Your task to perform on an android device: turn off airplane mode Image 0: 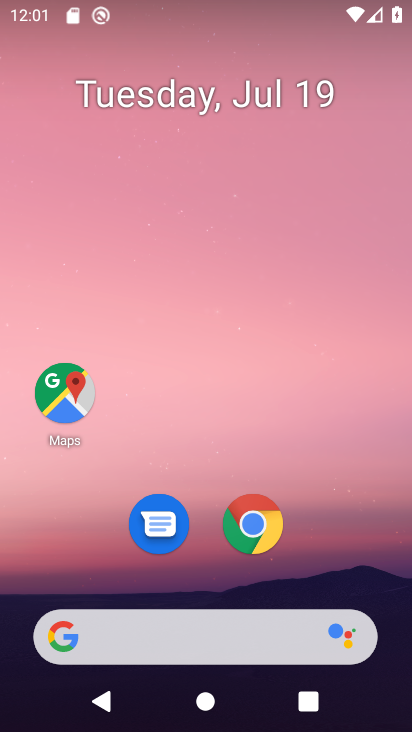
Step 0: drag from (325, 486) to (286, 36)
Your task to perform on an android device: turn off airplane mode Image 1: 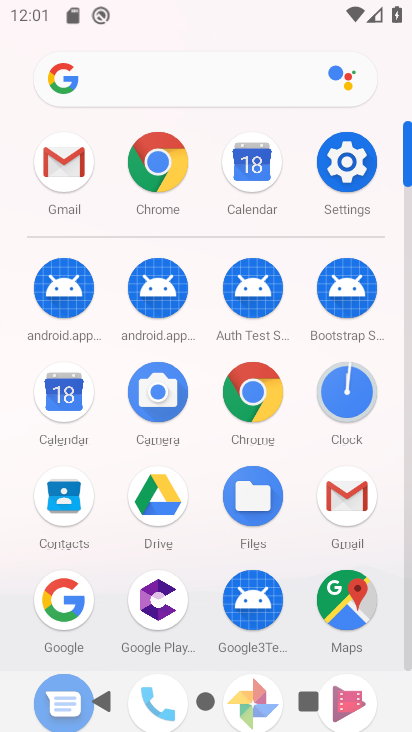
Step 1: click (335, 149)
Your task to perform on an android device: turn off airplane mode Image 2: 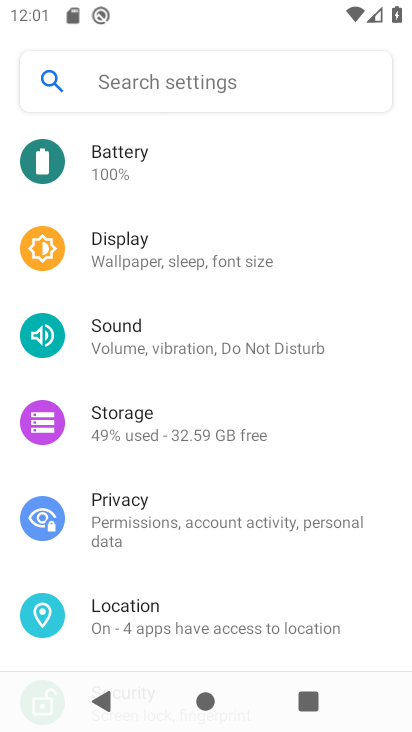
Step 2: drag from (199, 213) to (190, 574)
Your task to perform on an android device: turn off airplane mode Image 3: 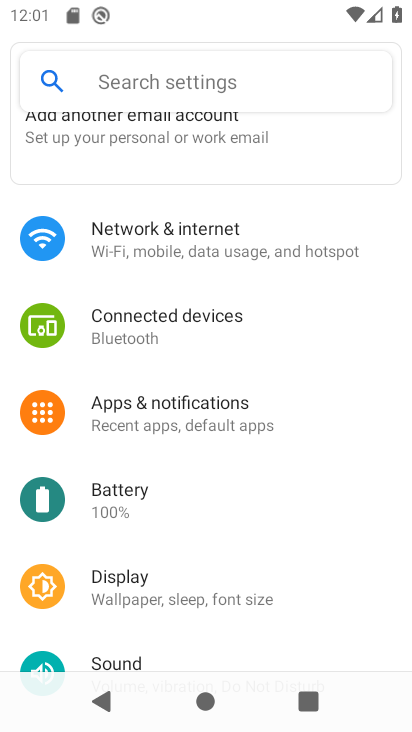
Step 3: click (223, 244)
Your task to perform on an android device: turn off airplane mode Image 4: 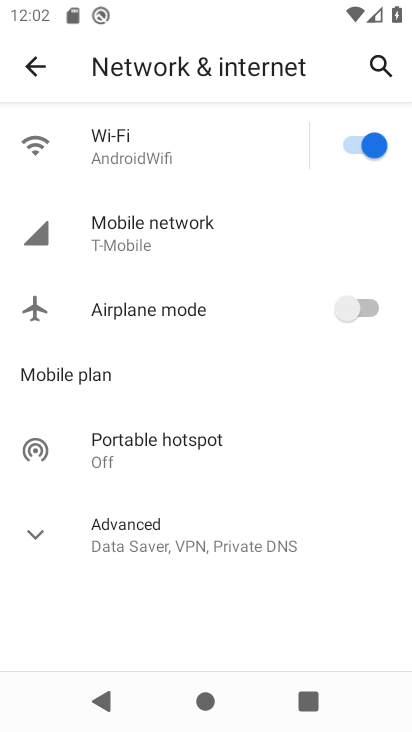
Step 4: task complete